Your task to perform on an android device: change your default location settings in chrome Image 0: 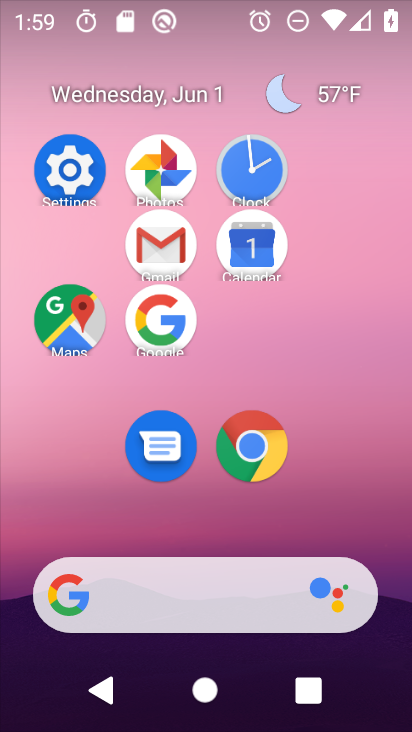
Step 0: click (255, 433)
Your task to perform on an android device: change your default location settings in chrome Image 1: 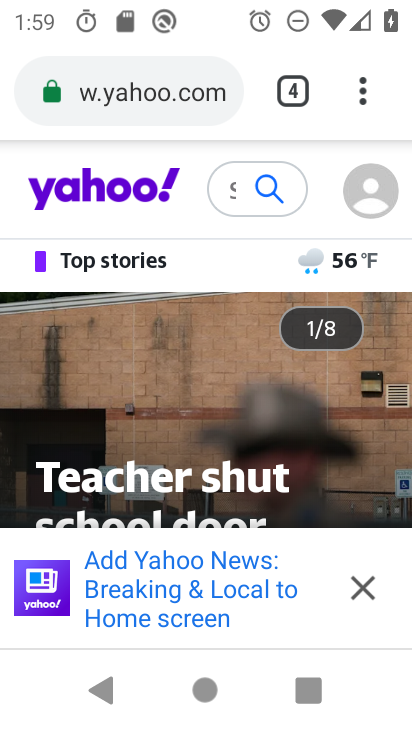
Step 1: click (370, 91)
Your task to perform on an android device: change your default location settings in chrome Image 2: 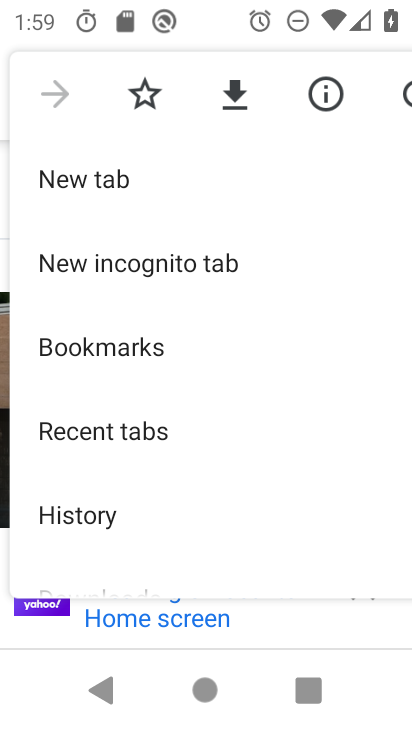
Step 2: drag from (277, 586) to (335, 151)
Your task to perform on an android device: change your default location settings in chrome Image 3: 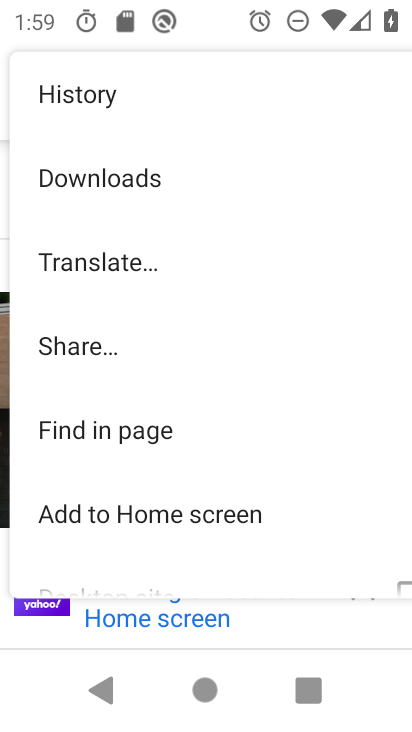
Step 3: drag from (190, 462) to (202, 75)
Your task to perform on an android device: change your default location settings in chrome Image 4: 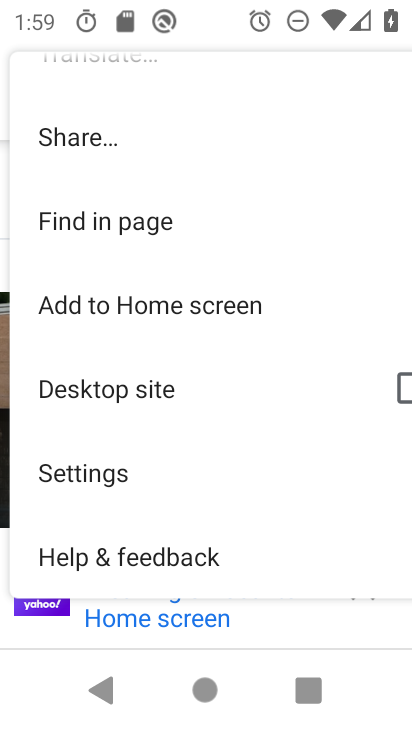
Step 4: click (182, 455)
Your task to perform on an android device: change your default location settings in chrome Image 5: 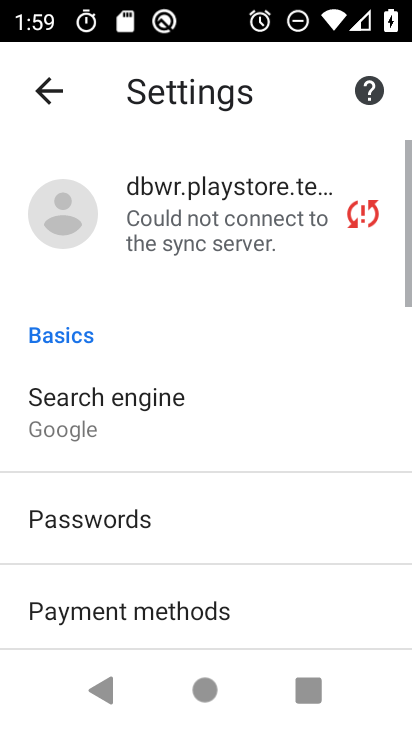
Step 5: drag from (182, 455) to (177, 115)
Your task to perform on an android device: change your default location settings in chrome Image 6: 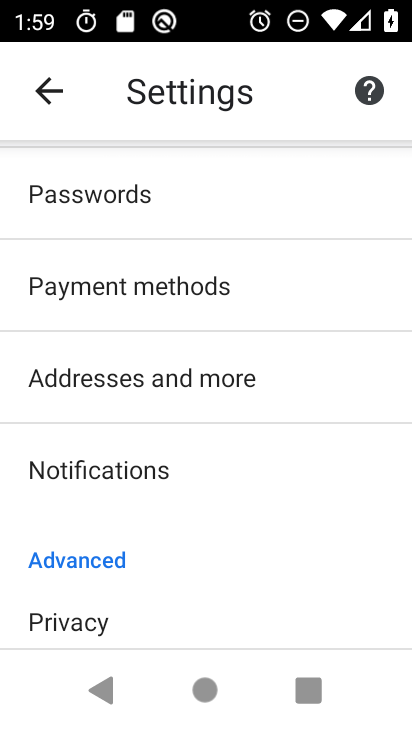
Step 6: drag from (160, 505) to (146, 89)
Your task to perform on an android device: change your default location settings in chrome Image 7: 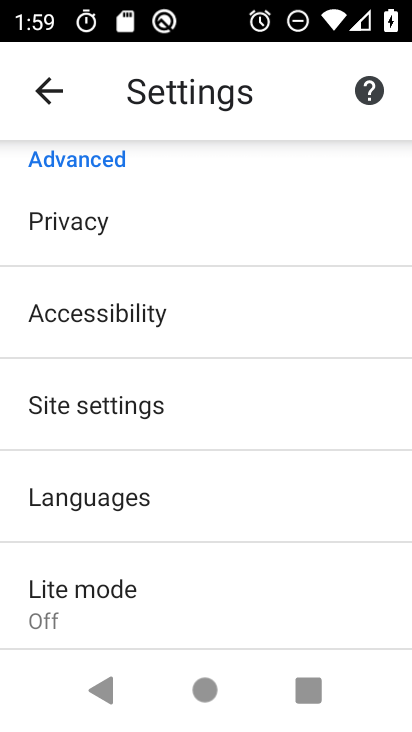
Step 7: click (196, 429)
Your task to perform on an android device: change your default location settings in chrome Image 8: 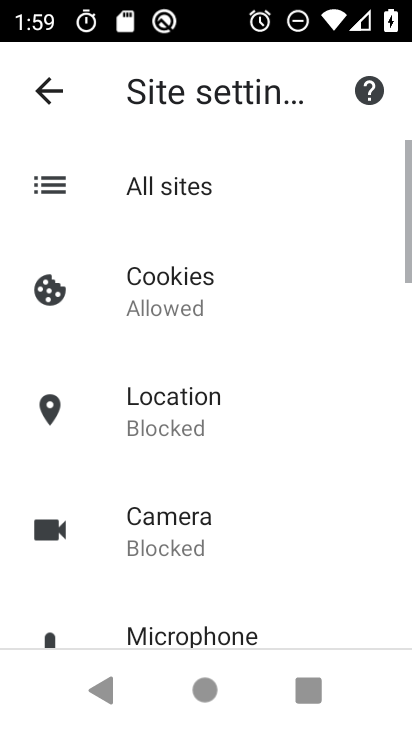
Step 8: drag from (196, 429) to (224, 185)
Your task to perform on an android device: change your default location settings in chrome Image 9: 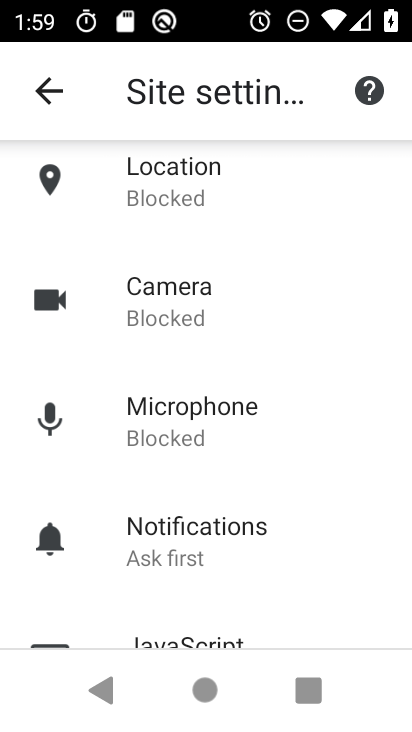
Step 9: click (226, 176)
Your task to perform on an android device: change your default location settings in chrome Image 10: 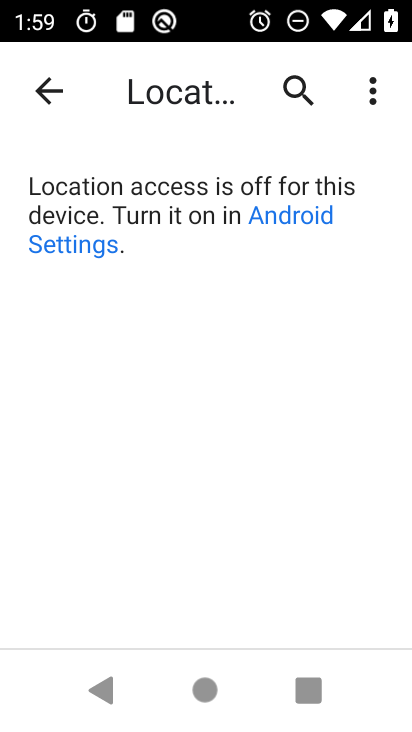
Step 10: click (314, 213)
Your task to perform on an android device: change your default location settings in chrome Image 11: 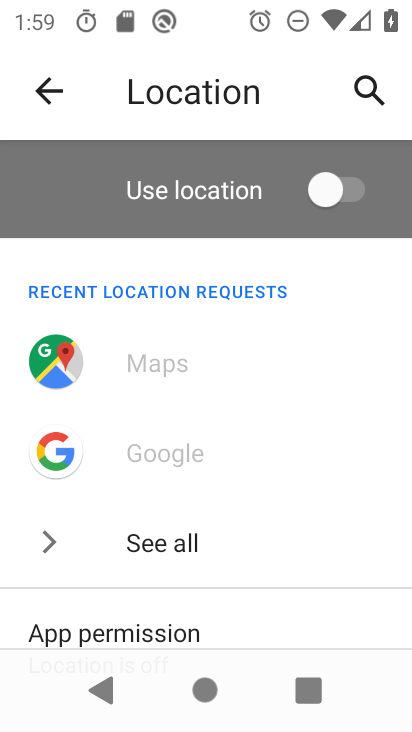
Step 11: click (338, 195)
Your task to perform on an android device: change your default location settings in chrome Image 12: 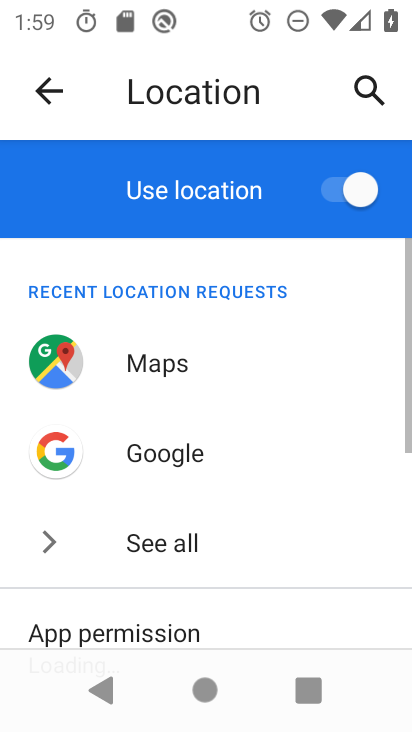
Step 12: task complete